Your task to perform on an android device: make emails show in primary in the gmail app Image 0: 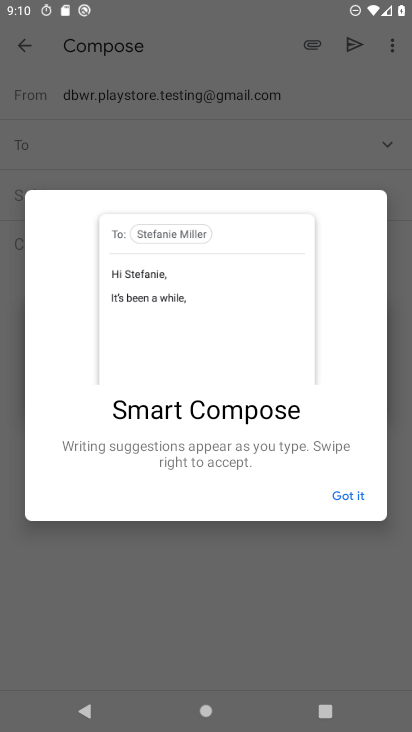
Step 0: press home button
Your task to perform on an android device: make emails show in primary in the gmail app Image 1: 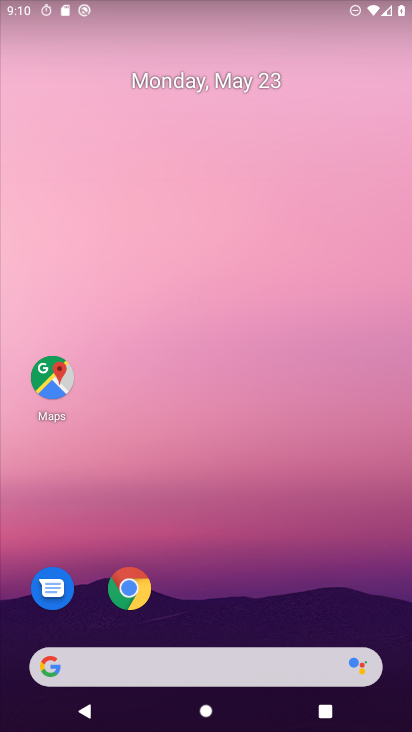
Step 1: drag from (386, 629) to (378, 186)
Your task to perform on an android device: make emails show in primary in the gmail app Image 2: 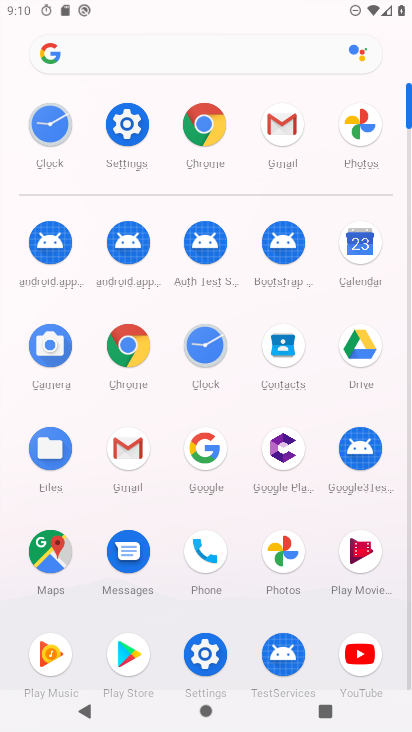
Step 2: click (286, 131)
Your task to perform on an android device: make emails show in primary in the gmail app Image 3: 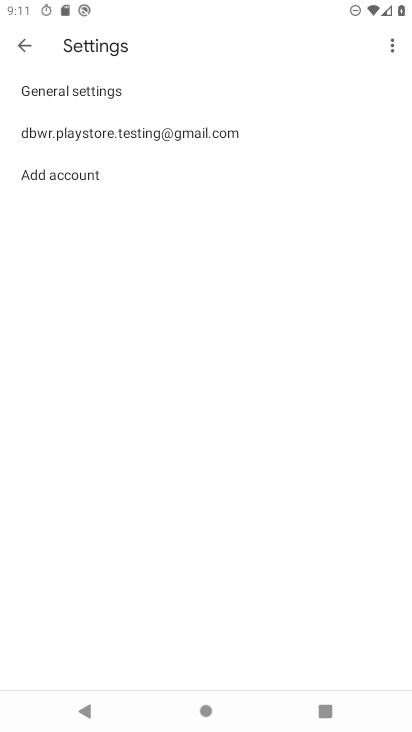
Step 3: click (49, 124)
Your task to perform on an android device: make emails show in primary in the gmail app Image 4: 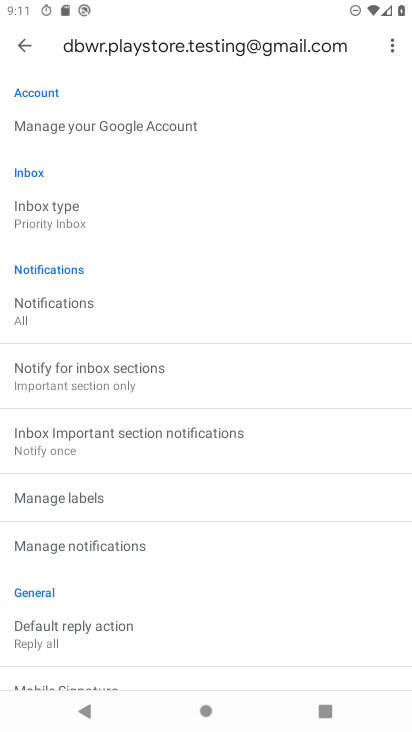
Step 4: click (58, 219)
Your task to perform on an android device: make emails show in primary in the gmail app Image 5: 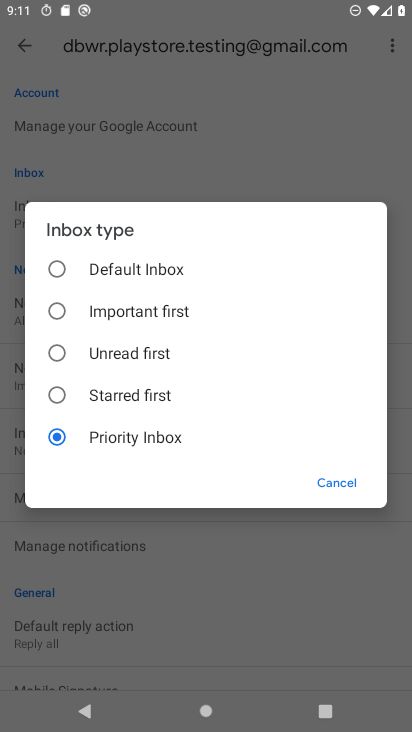
Step 5: click (51, 265)
Your task to perform on an android device: make emails show in primary in the gmail app Image 6: 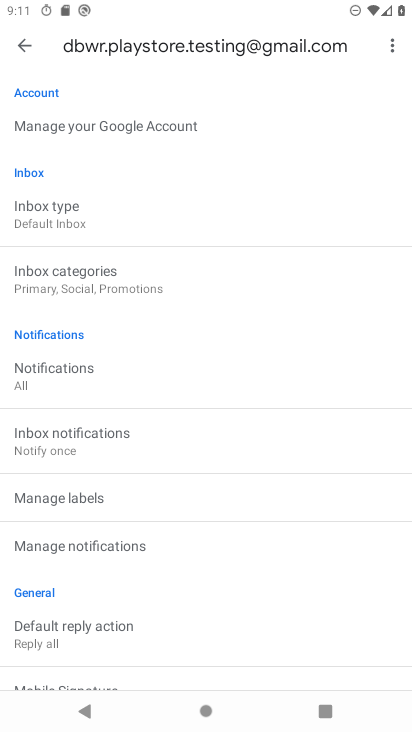
Step 6: click (54, 284)
Your task to perform on an android device: make emails show in primary in the gmail app Image 7: 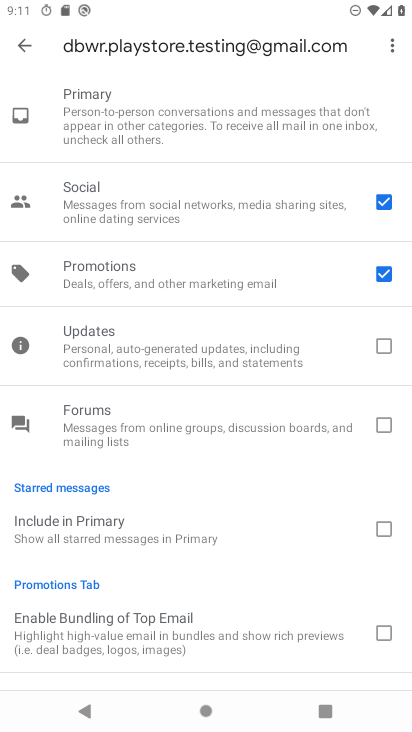
Step 7: click (384, 270)
Your task to perform on an android device: make emails show in primary in the gmail app Image 8: 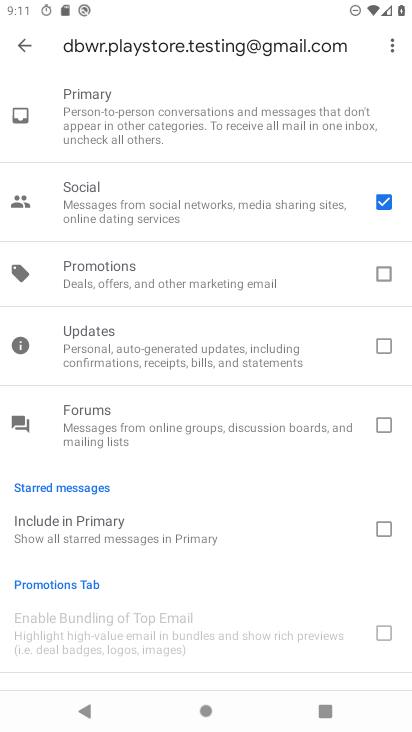
Step 8: click (387, 199)
Your task to perform on an android device: make emails show in primary in the gmail app Image 9: 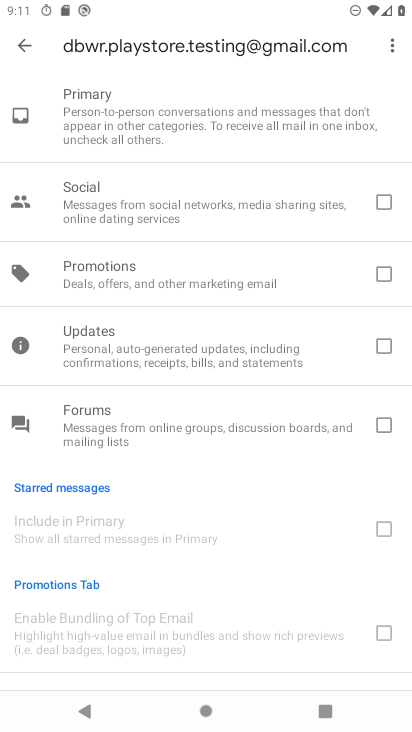
Step 9: click (23, 44)
Your task to perform on an android device: make emails show in primary in the gmail app Image 10: 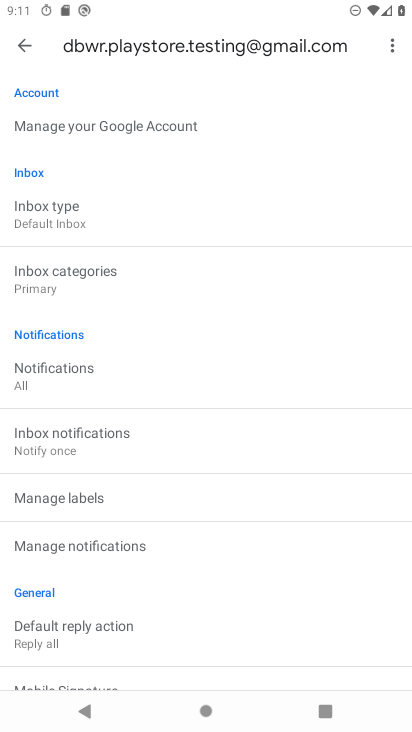
Step 10: task complete